Your task to perform on an android device: open device folders in google photos Image 0: 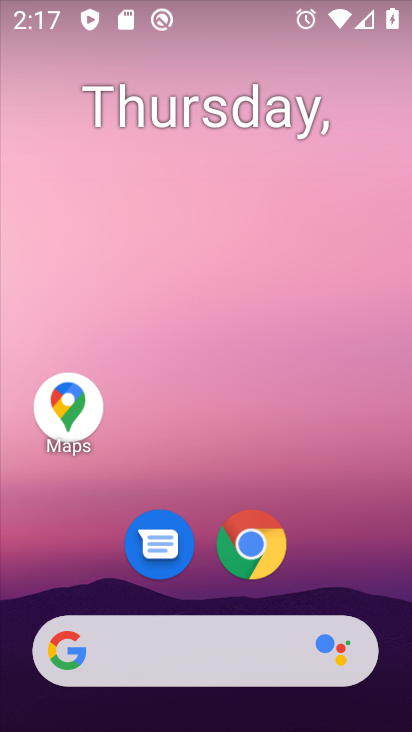
Step 0: drag from (319, 560) to (113, 120)
Your task to perform on an android device: open device folders in google photos Image 1: 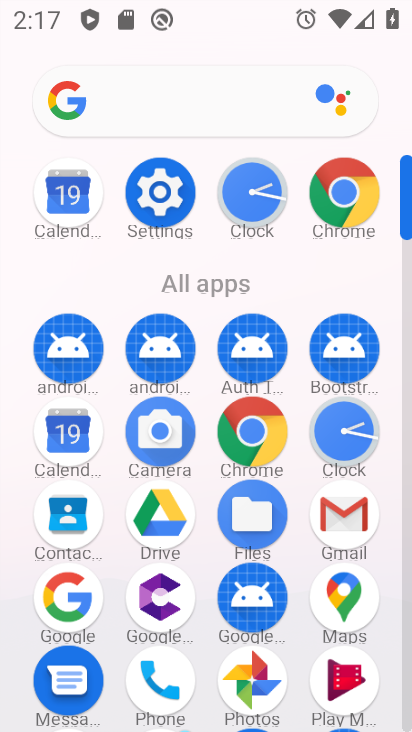
Step 1: click (253, 679)
Your task to perform on an android device: open device folders in google photos Image 2: 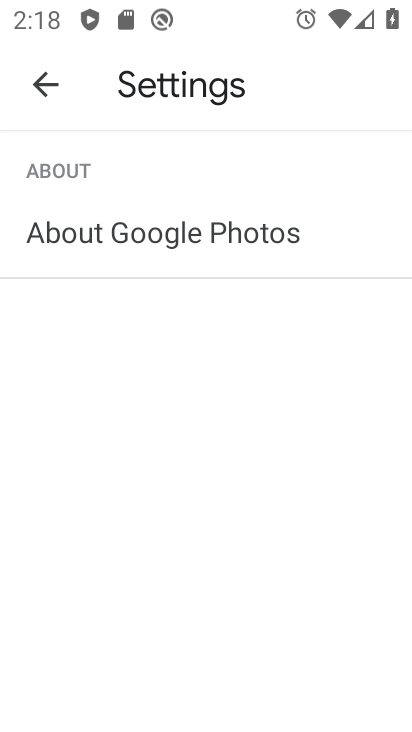
Step 2: click (45, 82)
Your task to perform on an android device: open device folders in google photos Image 3: 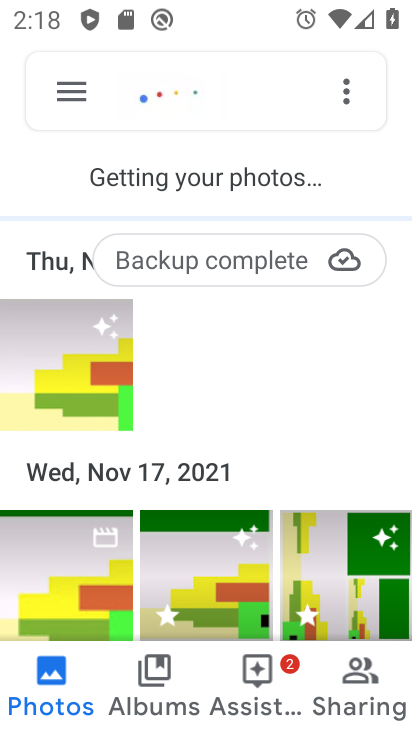
Step 3: click (61, 86)
Your task to perform on an android device: open device folders in google photos Image 4: 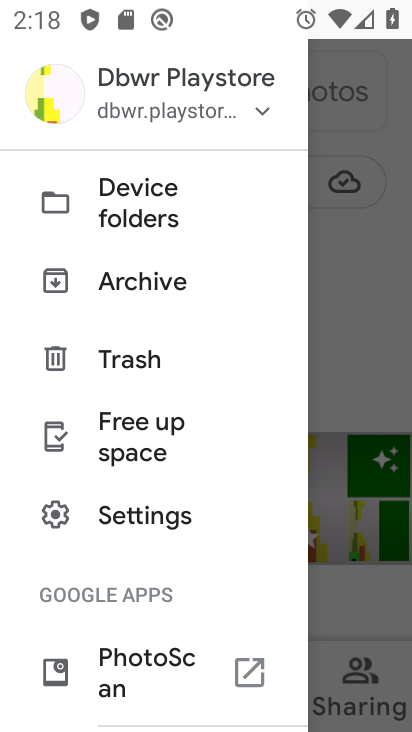
Step 4: click (139, 215)
Your task to perform on an android device: open device folders in google photos Image 5: 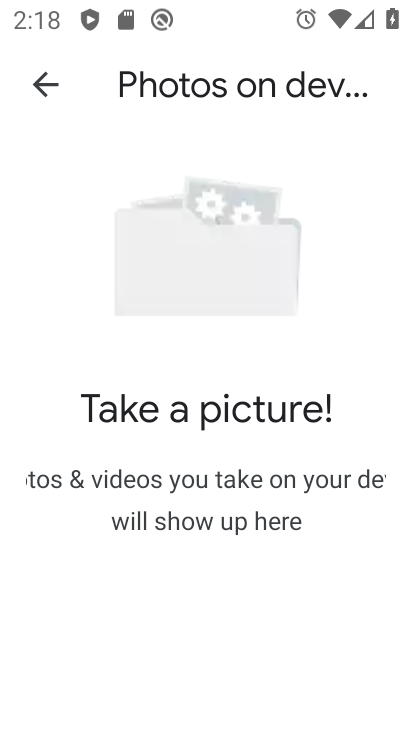
Step 5: task complete